Your task to perform on an android device: see tabs open on other devices in the chrome app Image 0: 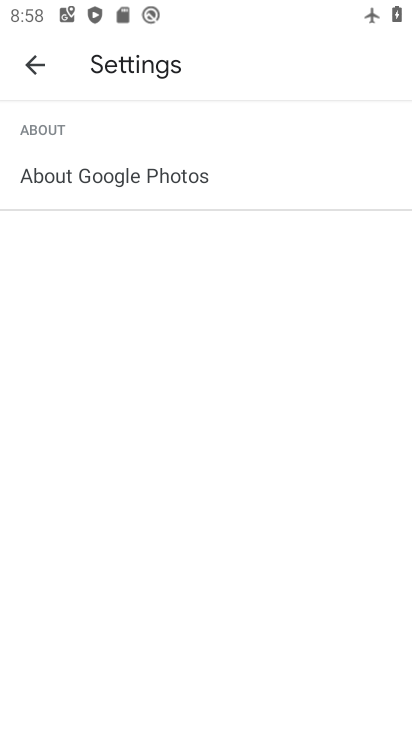
Step 0: press home button
Your task to perform on an android device: see tabs open on other devices in the chrome app Image 1: 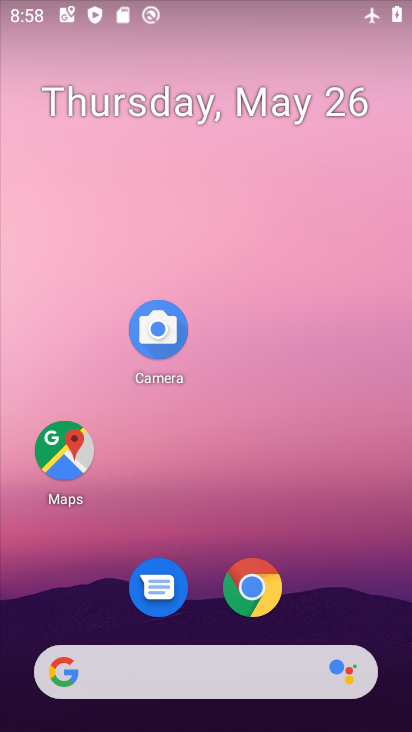
Step 1: click (241, 583)
Your task to perform on an android device: see tabs open on other devices in the chrome app Image 2: 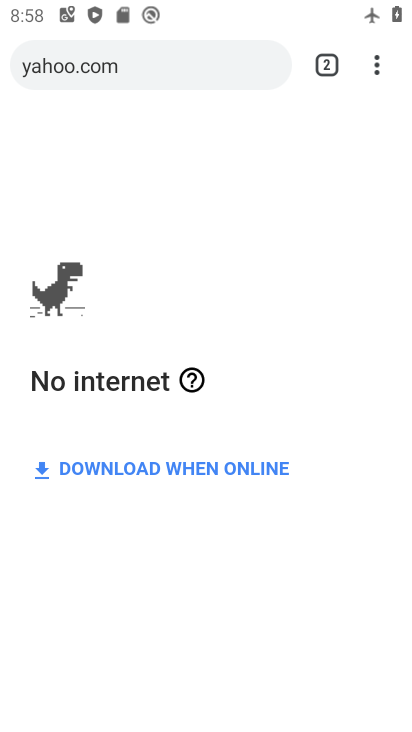
Step 2: task complete